Your task to perform on an android device: empty trash in google photos Image 0: 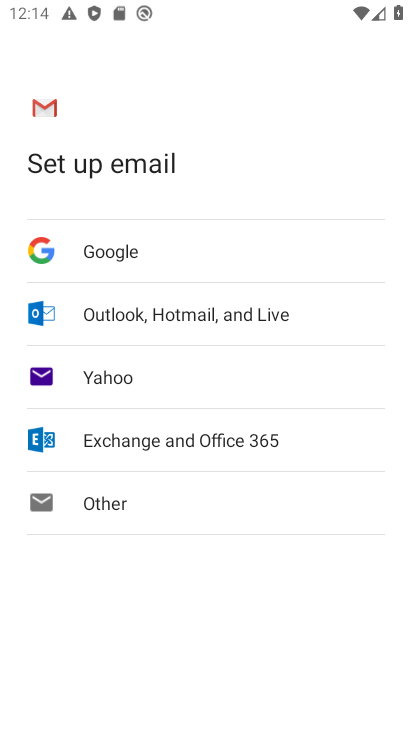
Step 0: press home button
Your task to perform on an android device: empty trash in google photos Image 1: 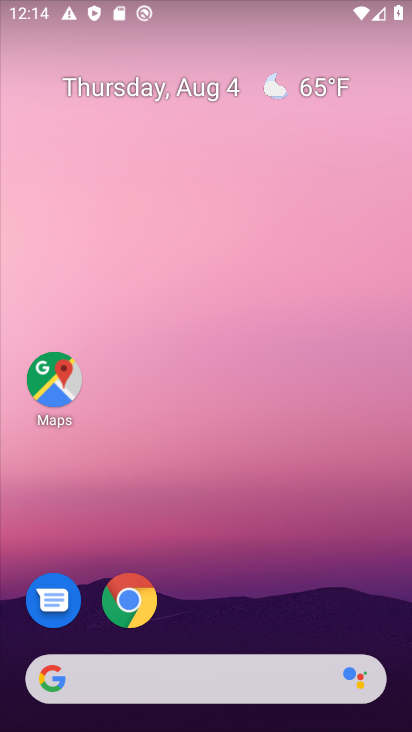
Step 1: drag from (224, 627) to (276, 12)
Your task to perform on an android device: empty trash in google photos Image 2: 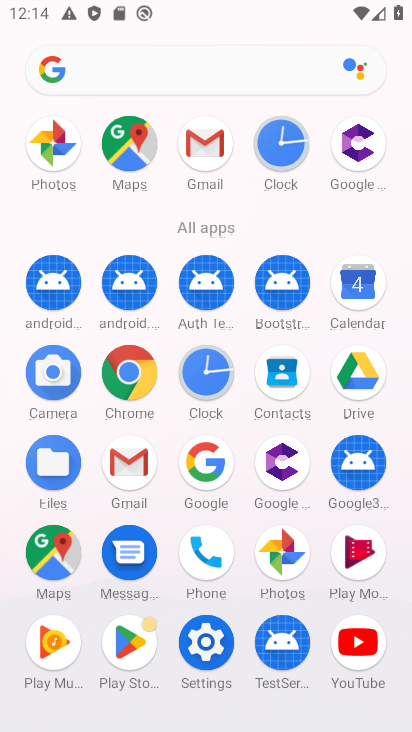
Step 2: click (279, 567)
Your task to perform on an android device: empty trash in google photos Image 3: 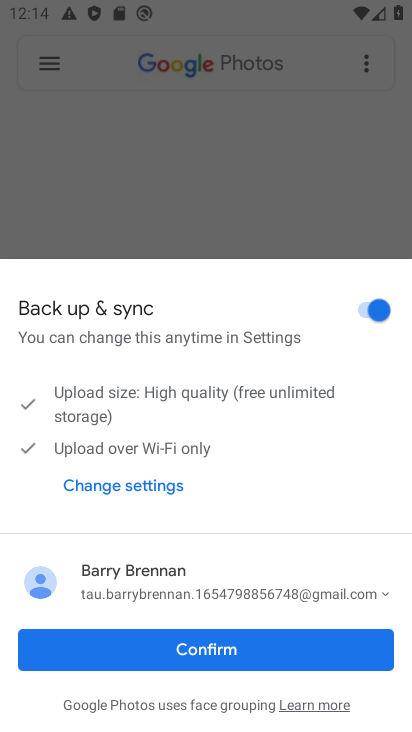
Step 3: click (259, 644)
Your task to perform on an android device: empty trash in google photos Image 4: 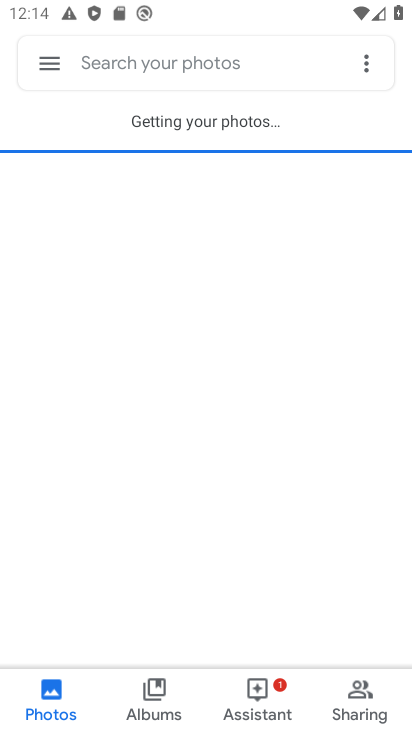
Step 4: click (51, 69)
Your task to perform on an android device: empty trash in google photos Image 5: 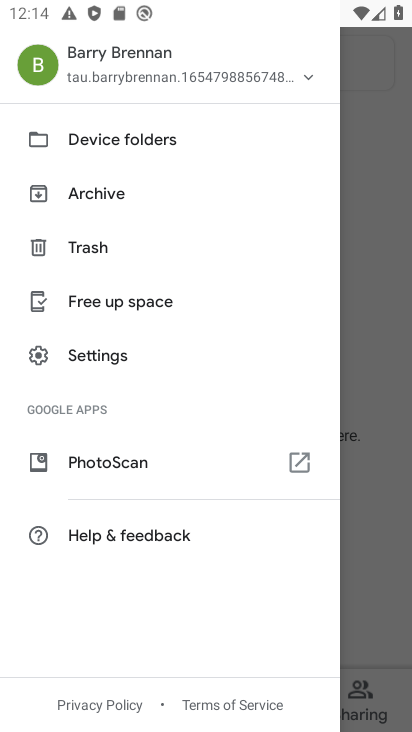
Step 5: click (75, 245)
Your task to perform on an android device: empty trash in google photos Image 6: 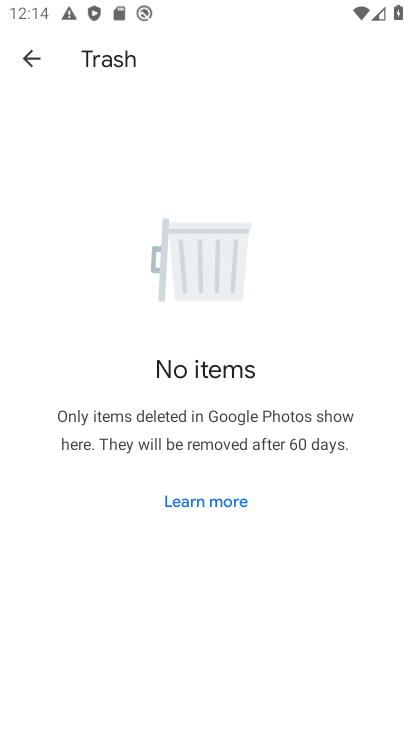
Step 6: task complete